Your task to perform on an android device: change the clock display to analog Image 0: 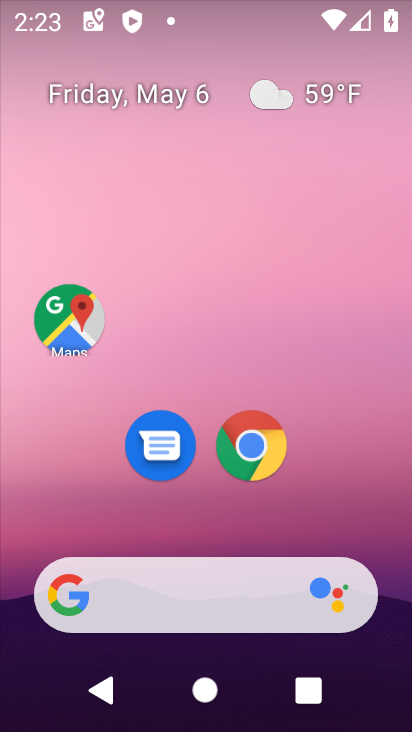
Step 0: drag from (403, 506) to (336, 92)
Your task to perform on an android device: change the clock display to analog Image 1: 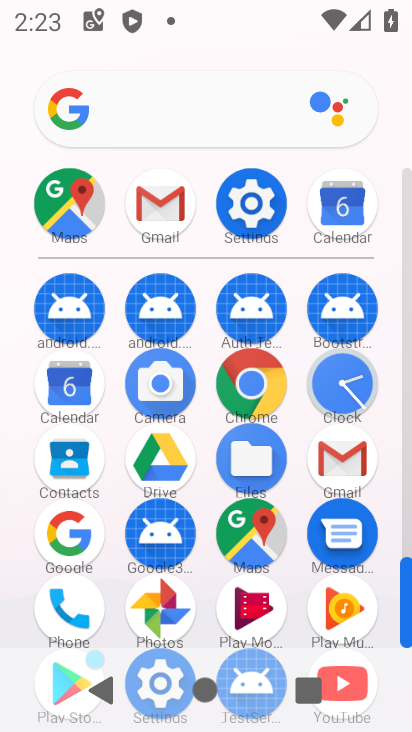
Step 1: click (330, 383)
Your task to perform on an android device: change the clock display to analog Image 2: 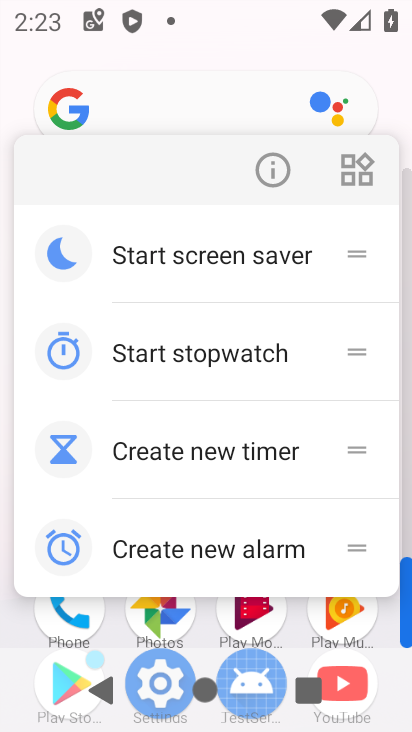
Step 2: click (330, 383)
Your task to perform on an android device: change the clock display to analog Image 3: 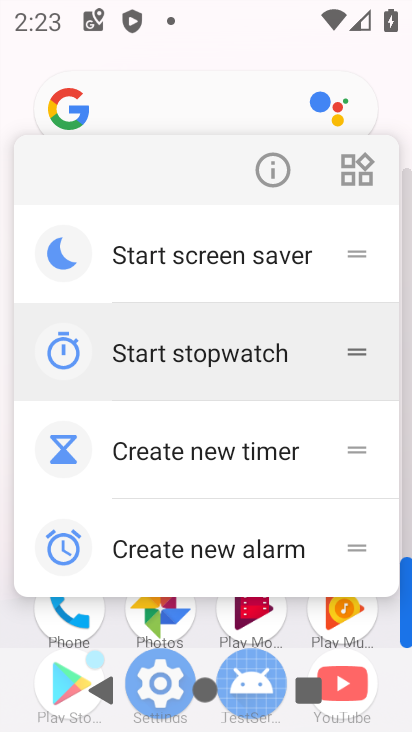
Step 3: click (330, 383)
Your task to perform on an android device: change the clock display to analog Image 4: 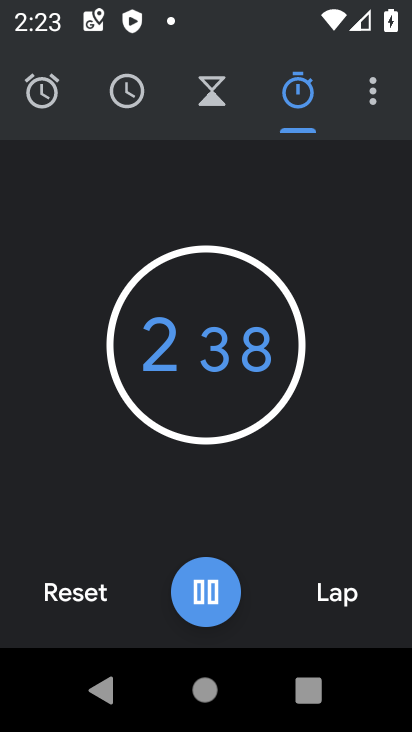
Step 4: click (363, 95)
Your task to perform on an android device: change the clock display to analog Image 5: 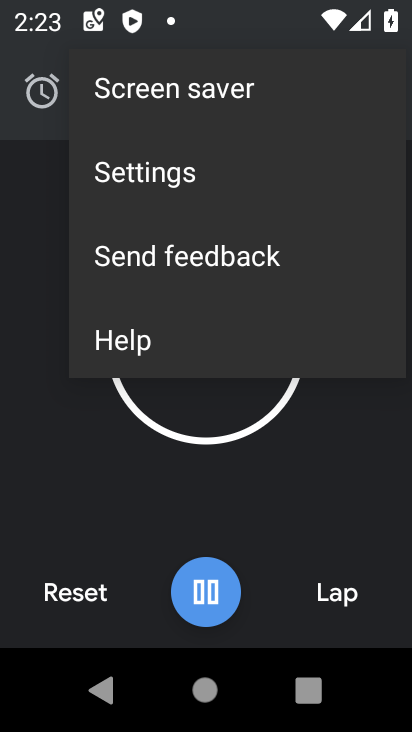
Step 5: click (210, 600)
Your task to perform on an android device: change the clock display to analog Image 6: 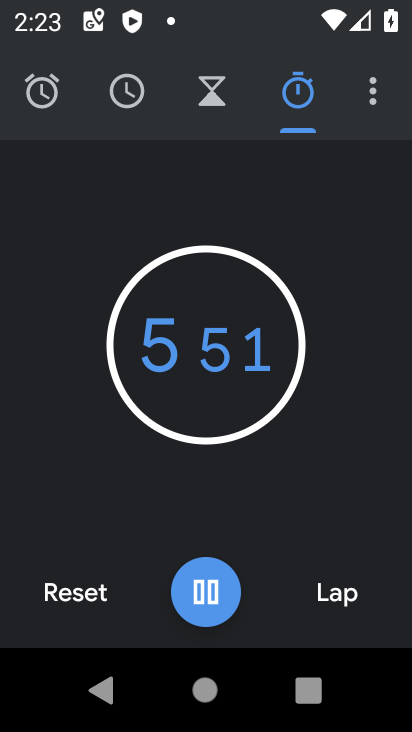
Step 6: click (199, 587)
Your task to perform on an android device: change the clock display to analog Image 7: 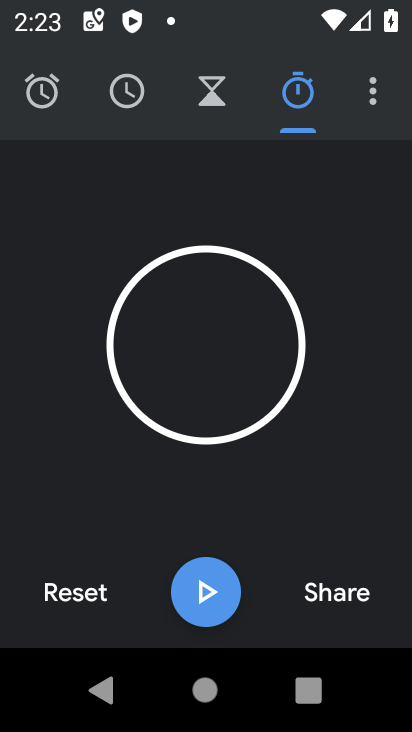
Step 7: click (374, 82)
Your task to perform on an android device: change the clock display to analog Image 8: 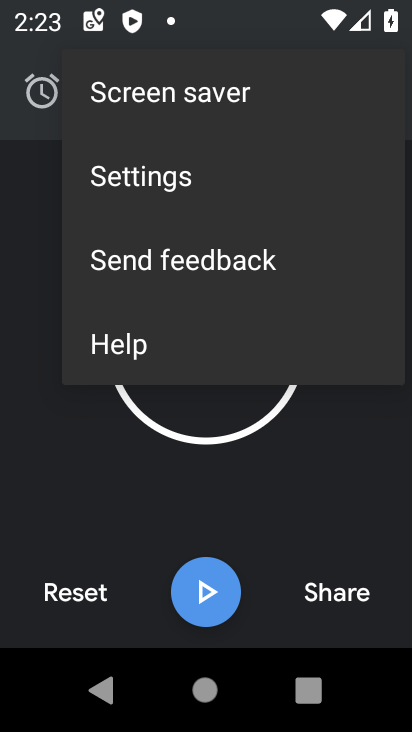
Step 8: click (142, 182)
Your task to perform on an android device: change the clock display to analog Image 9: 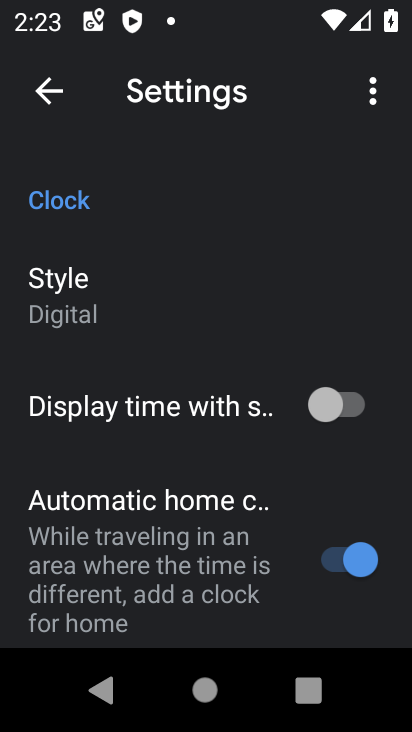
Step 9: click (118, 306)
Your task to perform on an android device: change the clock display to analog Image 10: 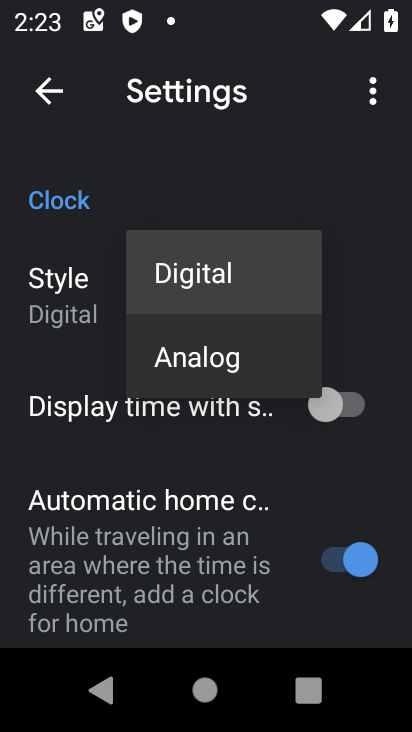
Step 10: click (227, 362)
Your task to perform on an android device: change the clock display to analog Image 11: 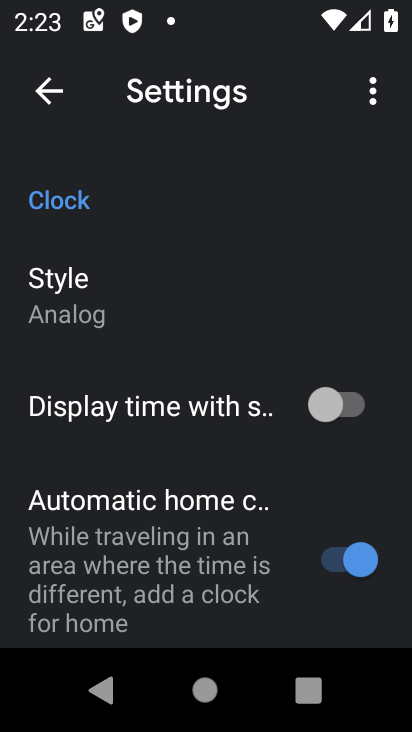
Step 11: task complete